Your task to perform on an android device: turn off location history Image 0: 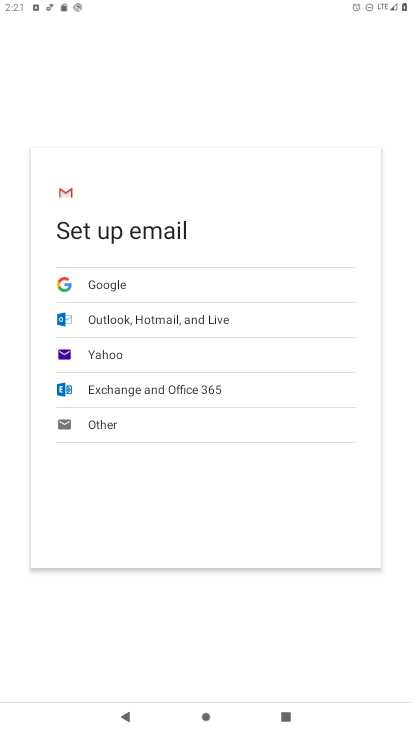
Step 0: press home button
Your task to perform on an android device: turn off location history Image 1: 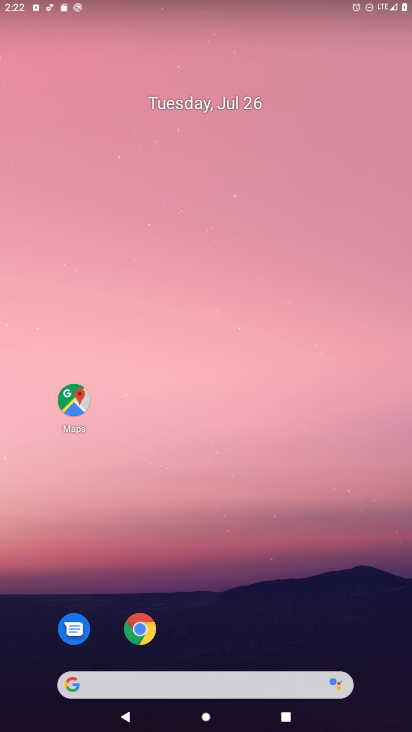
Step 1: click (73, 402)
Your task to perform on an android device: turn off location history Image 2: 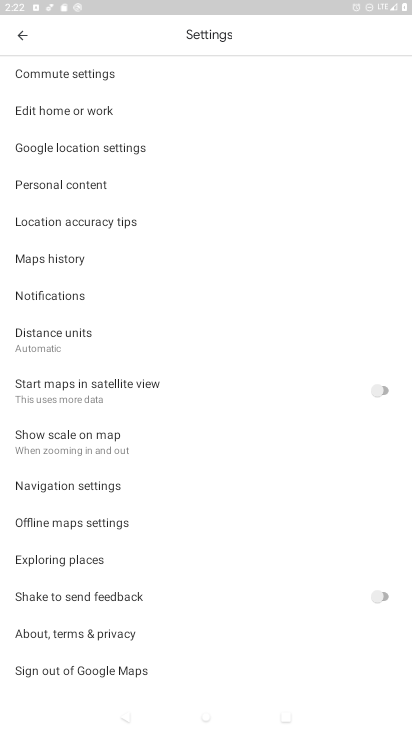
Step 2: click (50, 182)
Your task to perform on an android device: turn off location history Image 3: 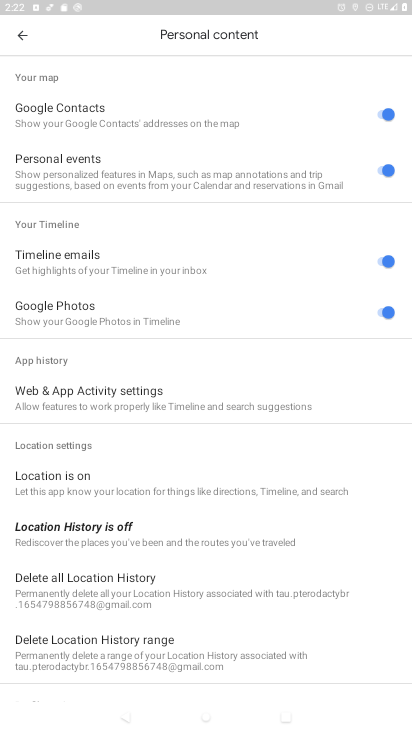
Step 3: task complete